Your task to perform on an android device: Turn on the flashlight Image 0: 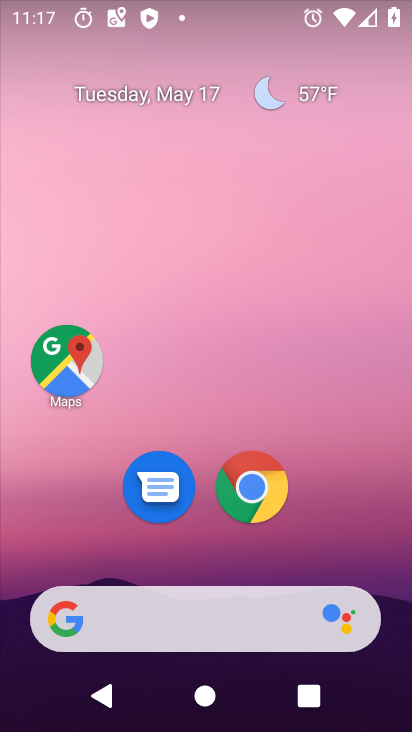
Step 0: drag from (220, 728) to (215, 139)
Your task to perform on an android device: Turn on the flashlight Image 1: 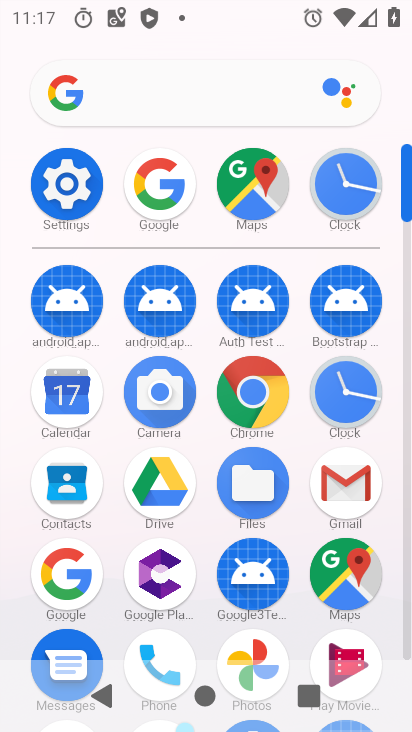
Step 1: click (69, 182)
Your task to perform on an android device: Turn on the flashlight Image 2: 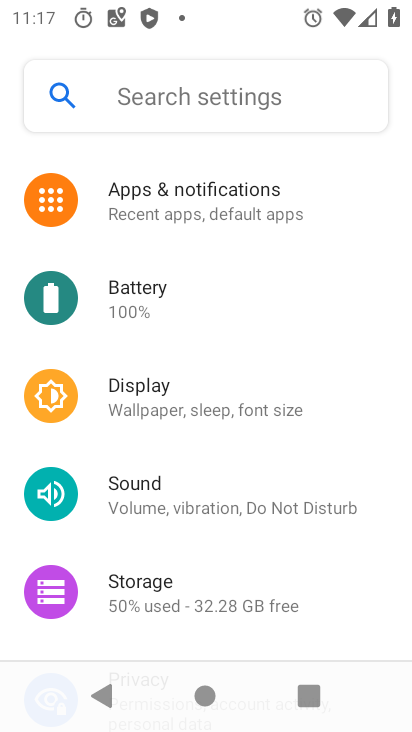
Step 2: task complete